Your task to perform on an android device: find snoozed emails in the gmail app Image 0: 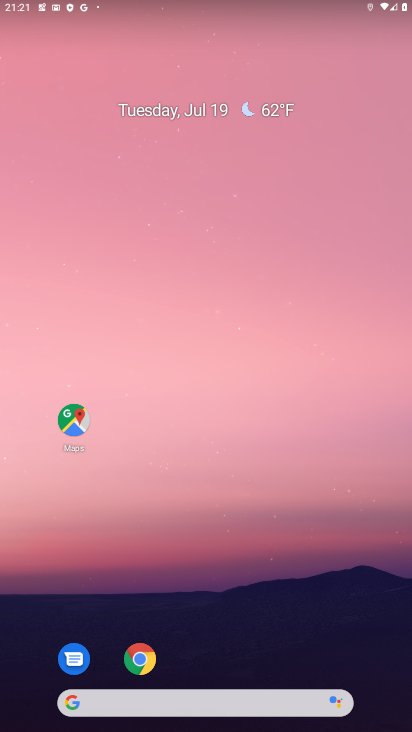
Step 0: press home button
Your task to perform on an android device: find snoozed emails in the gmail app Image 1: 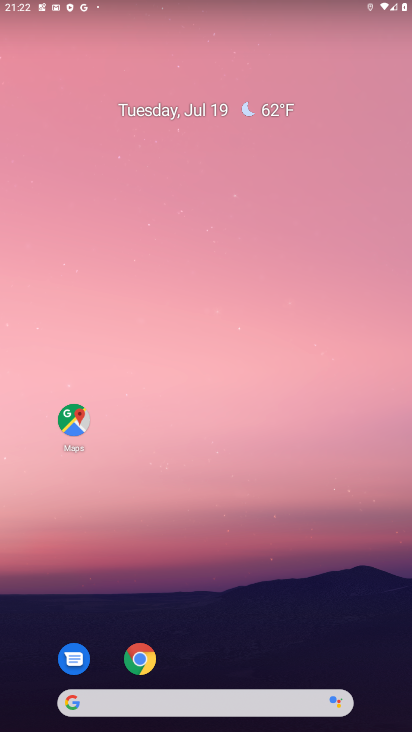
Step 1: drag from (260, 663) to (309, 19)
Your task to perform on an android device: find snoozed emails in the gmail app Image 2: 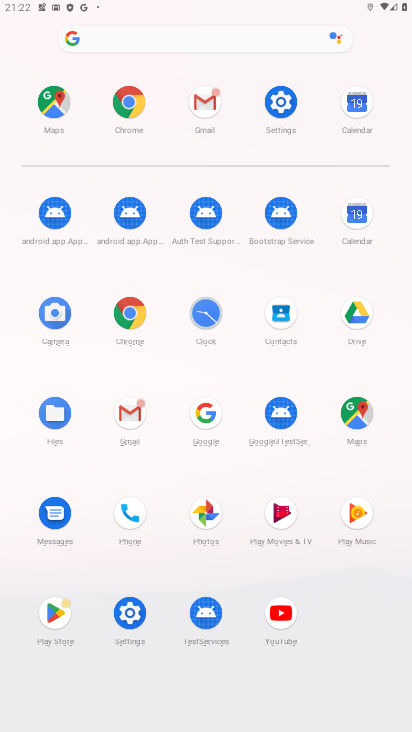
Step 2: click (153, 427)
Your task to perform on an android device: find snoozed emails in the gmail app Image 3: 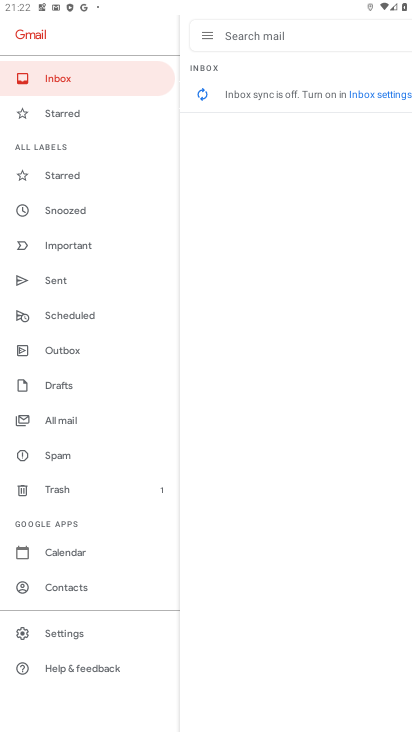
Step 3: click (40, 219)
Your task to perform on an android device: find snoozed emails in the gmail app Image 4: 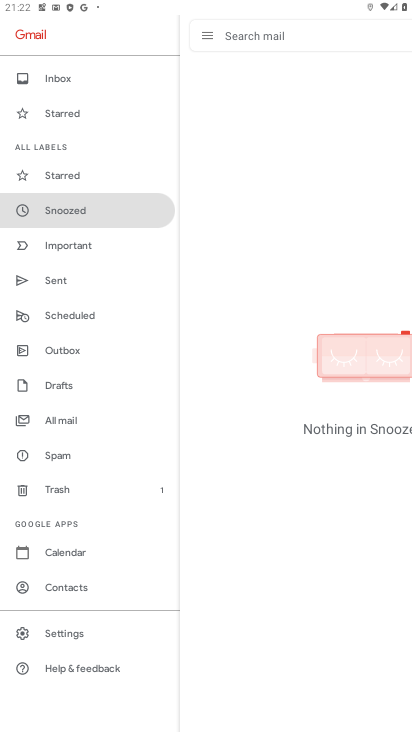
Step 4: task complete